Your task to perform on an android device: Go to Amazon Image 0: 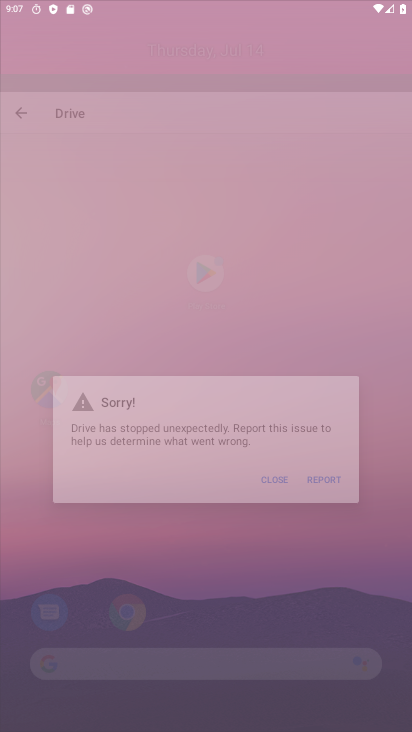
Step 0: click (386, 150)
Your task to perform on an android device: Go to Amazon Image 1: 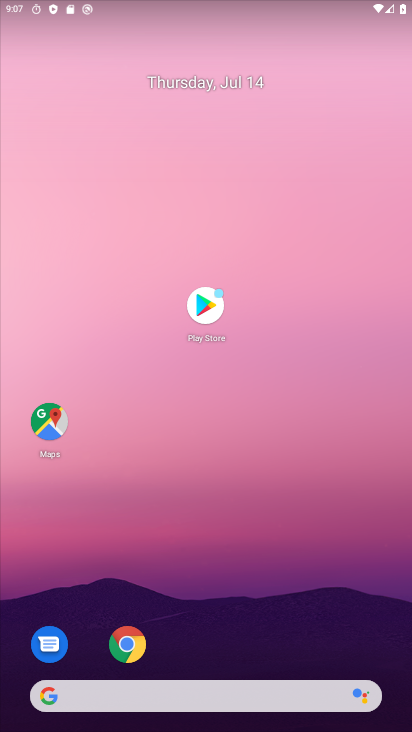
Step 1: drag from (183, 665) to (186, 239)
Your task to perform on an android device: Go to Amazon Image 2: 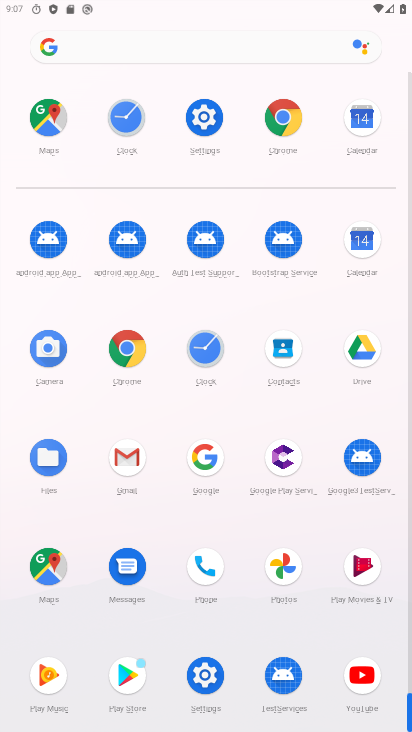
Step 2: click (123, 347)
Your task to perform on an android device: Go to Amazon Image 3: 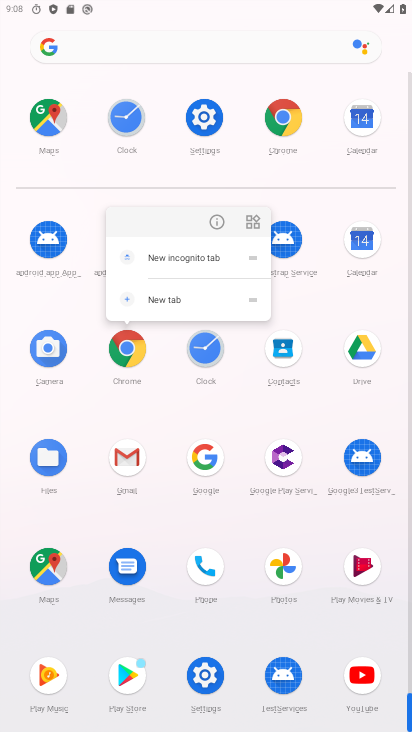
Step 3: click (224, 215)
Your task to perform on an android device: Go to Amazon Image 4: 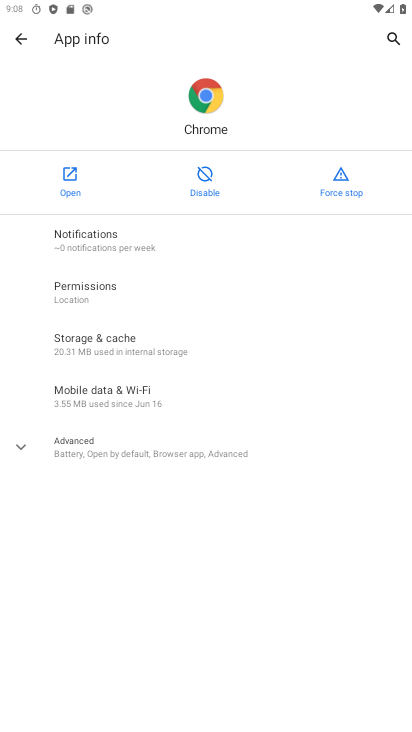
Step 4: click (77, 180)
Your task to perform on an android device: Go to Amazon Image 5: 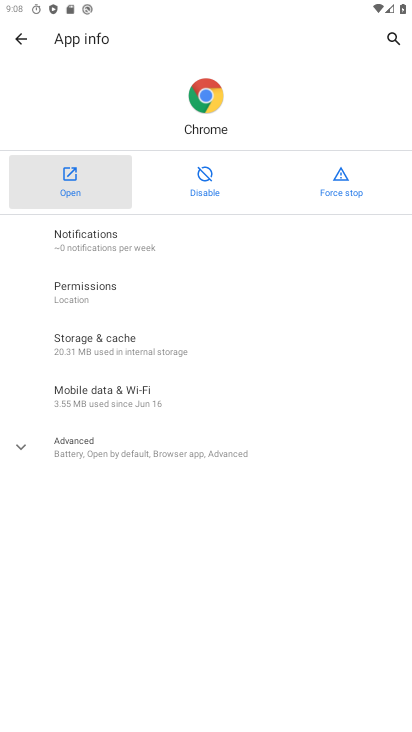
Step 5: click (70, 180)
Your task to perform on an android device: Go to Amazon Image 6: 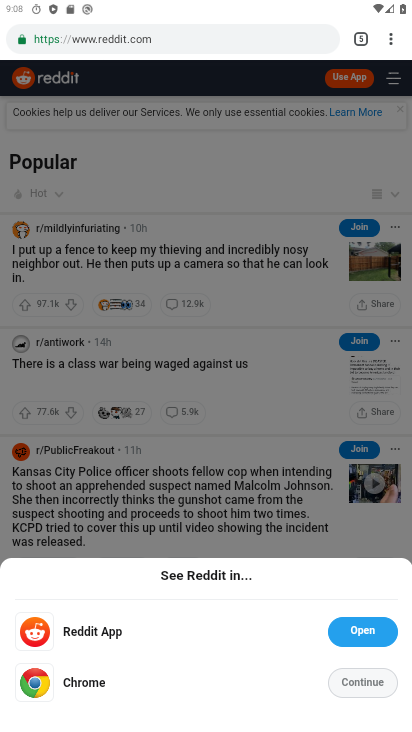
Step 6: drag from (181, 414) to (194, 242)
Your task to perform on an android device: Go to Amazon Image 7: 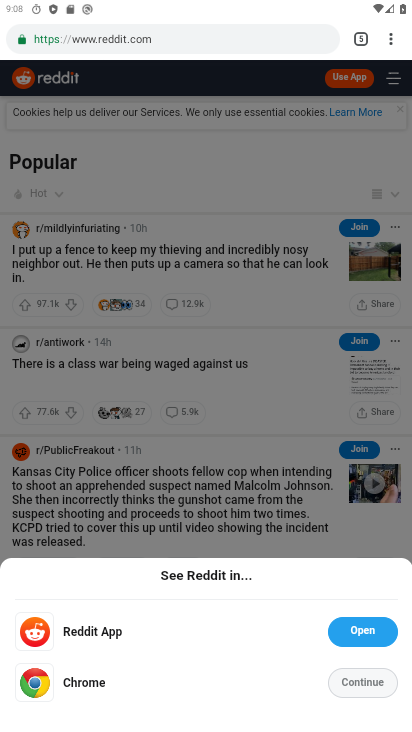
Step 7: click (250, 46)
Your task to perform on an android device: Go to Amazon Image 8: 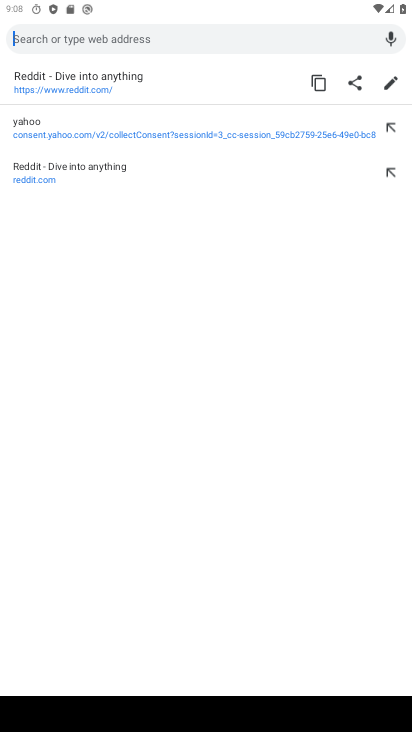
Step 8: press home button
Your task to perform on an android device: Go to Amazon Image 9: 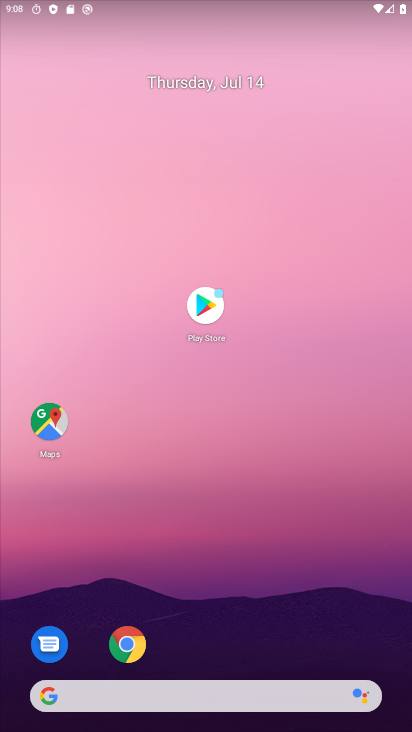
Step 9: drag from (243, 395) to (291, 244)
Your task to perform on an android device: Go to Amazon Image 10: 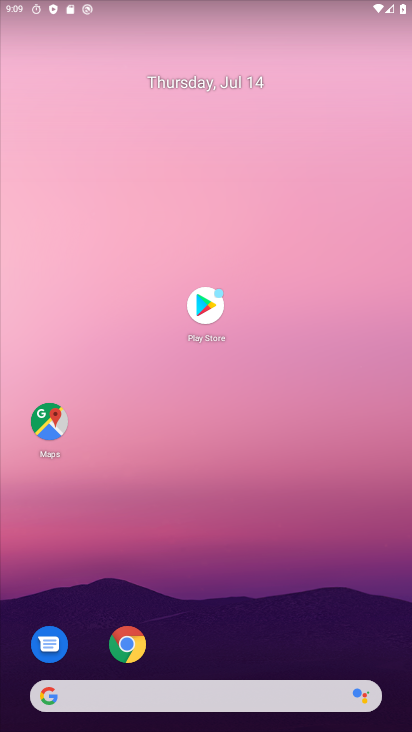
Step 10: drag from (210, 626) to (211, 229)
Your task to perform on an android device: Go to Amazon Image 11: 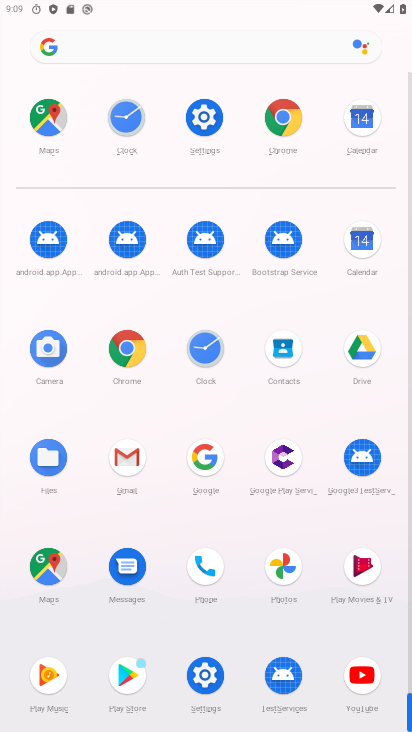
Step 11: click (39, 27)
Your task to perform on an android device: Go to Amazon Image 12: 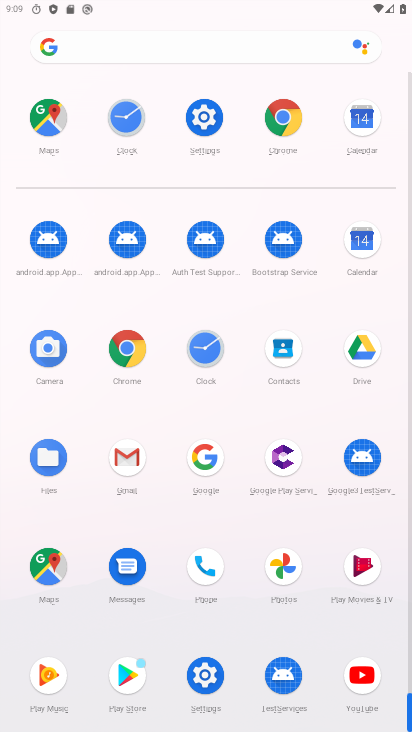
Step 12: click (105, 40)
Your task to perform on an android device: Go to Amazon Image 13: 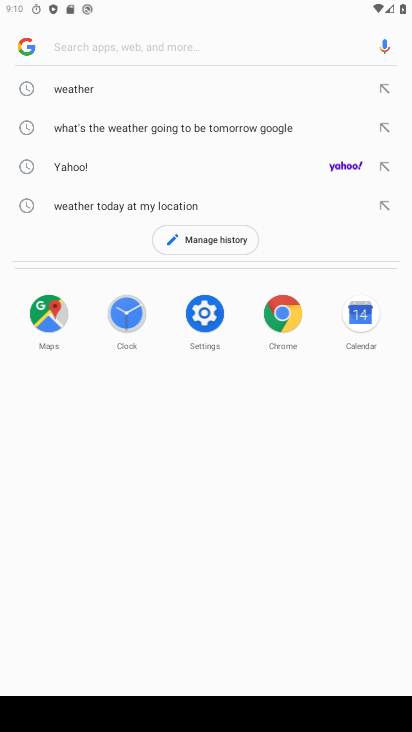
Step 13: drag from (287, 528) to (298, 429)
Your task to perform on an android device: Go to Amazon Image 14: 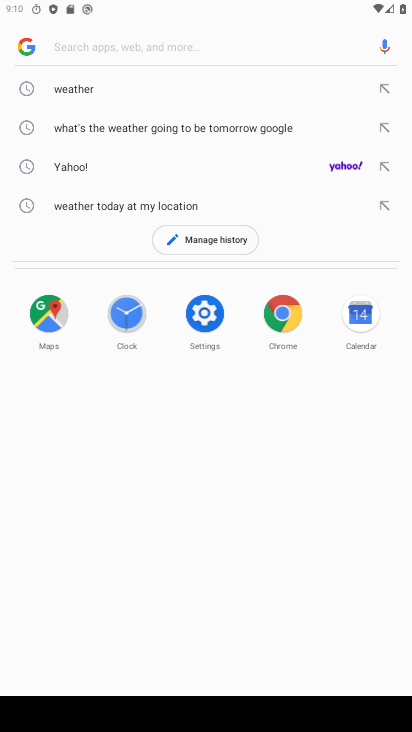
Step 14: type "Amazon"
Your task to perform on an android device: Go to Amazon Image 15: 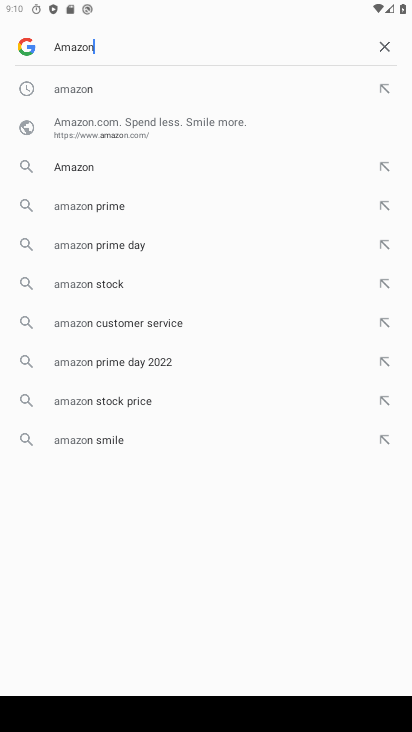
Step 15: type ""
Your task to perform on an android device: Go to Amazon Image 16: 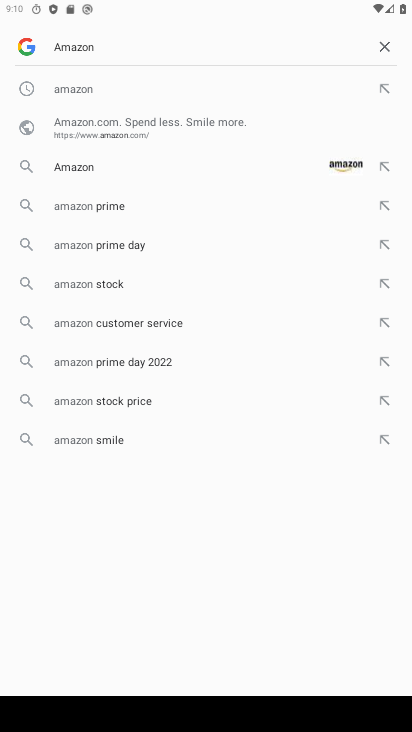
Step 16: drag from (236, 574) to (295, 276)
Your task to perform on an android device: Go to Amazon Image 17: 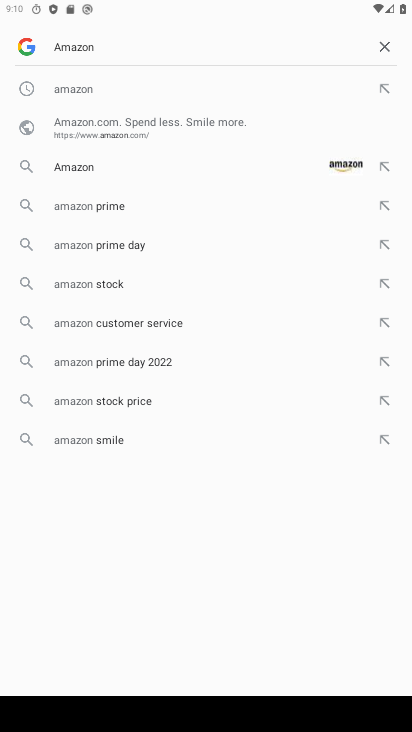
Step 17: click (107, 76)
Your task to perform on an android device: Go to Amazon Image 18: 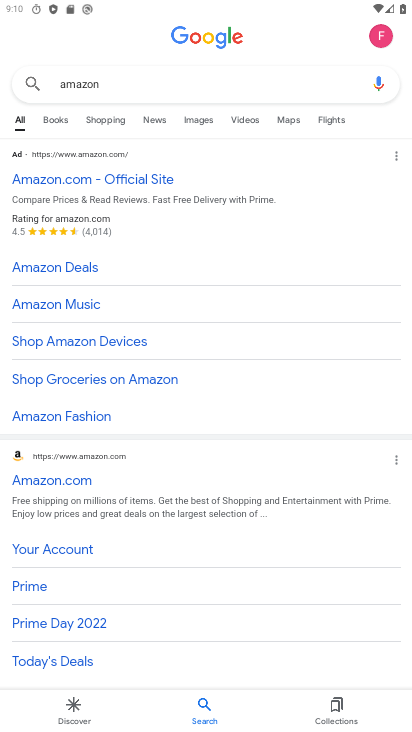
Step 18: click (53, 185)
Your task to perform on an android device: Go to Amazon Image 19: 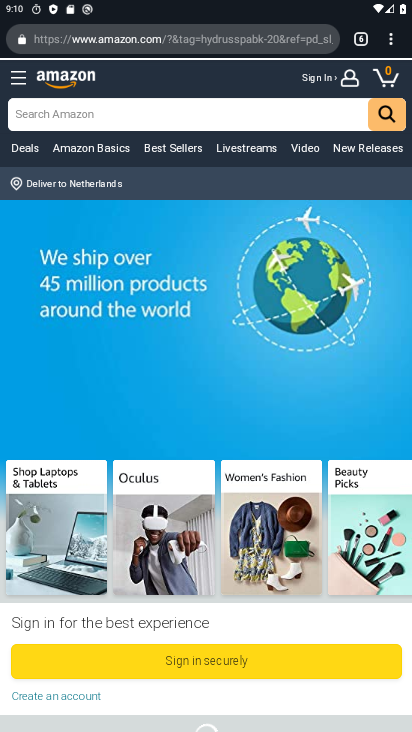
Step 19: task complete